Your task to perform on an android device: uninstall "YouTube Kids" Image 0: 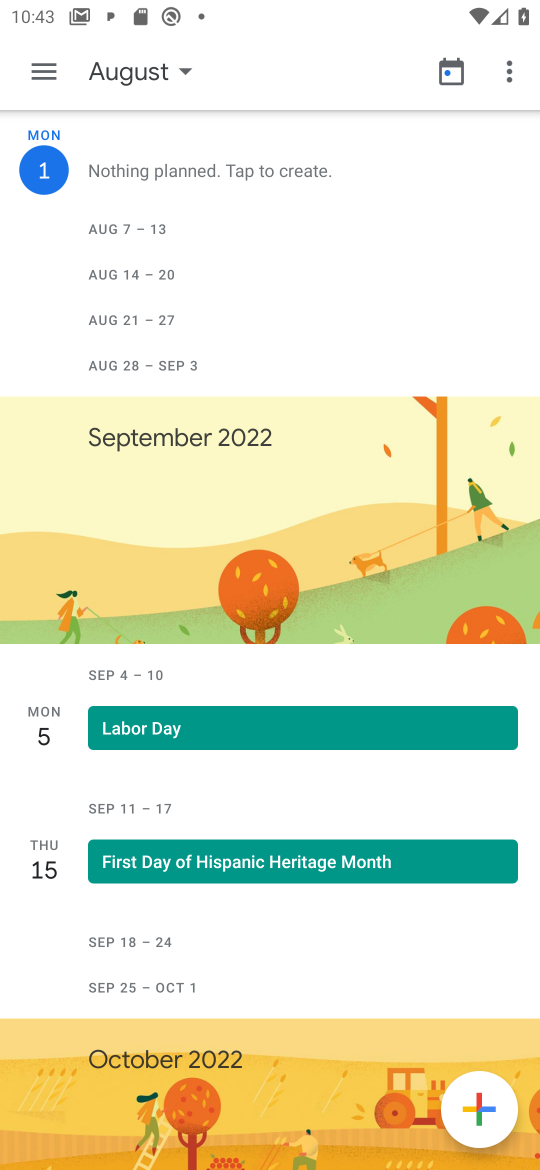
Step 0: press home button
Your task to perform on an android device: uninstall "YouTube Kids" Image 1: 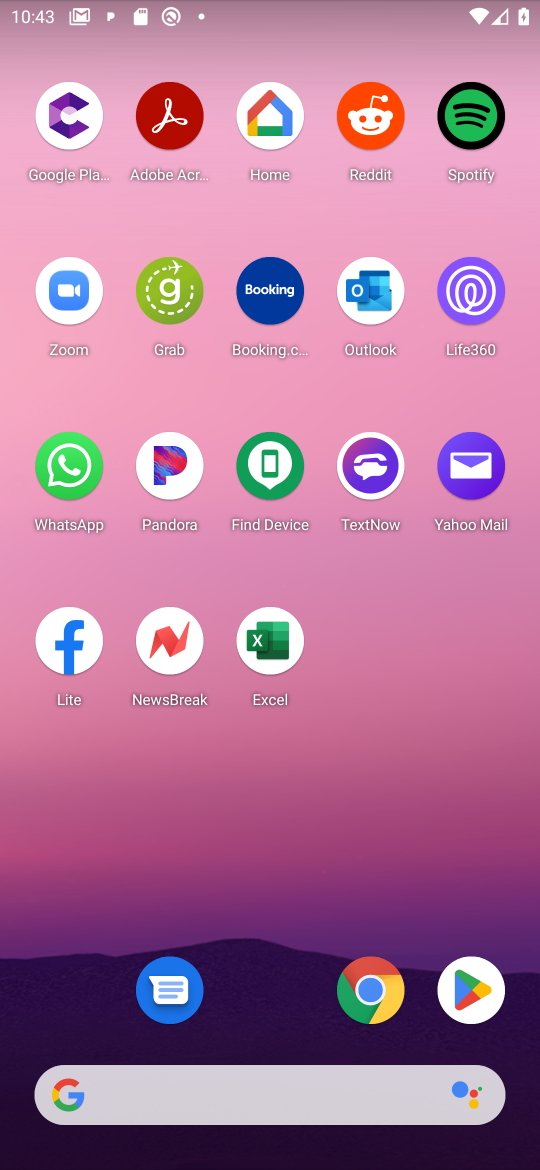
Step 1: click (472, 984)
Your task to perform on an android device: uninstall "YouTube Kids" Image 2: 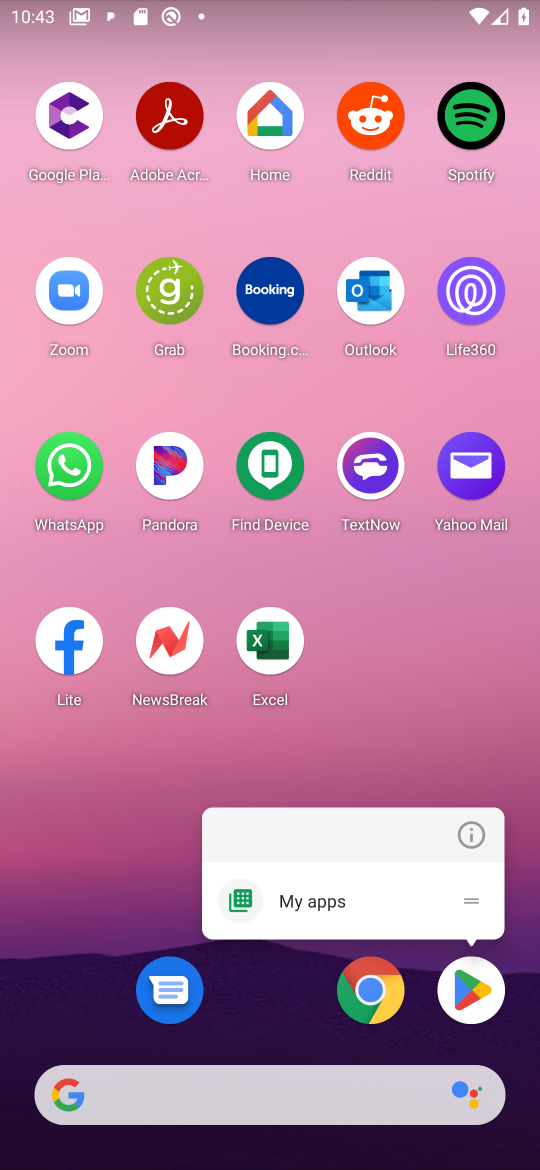
Step 2: click (487, 984)
Your task to perform on an android device: uninstall "YouTube Kids" Image 3: 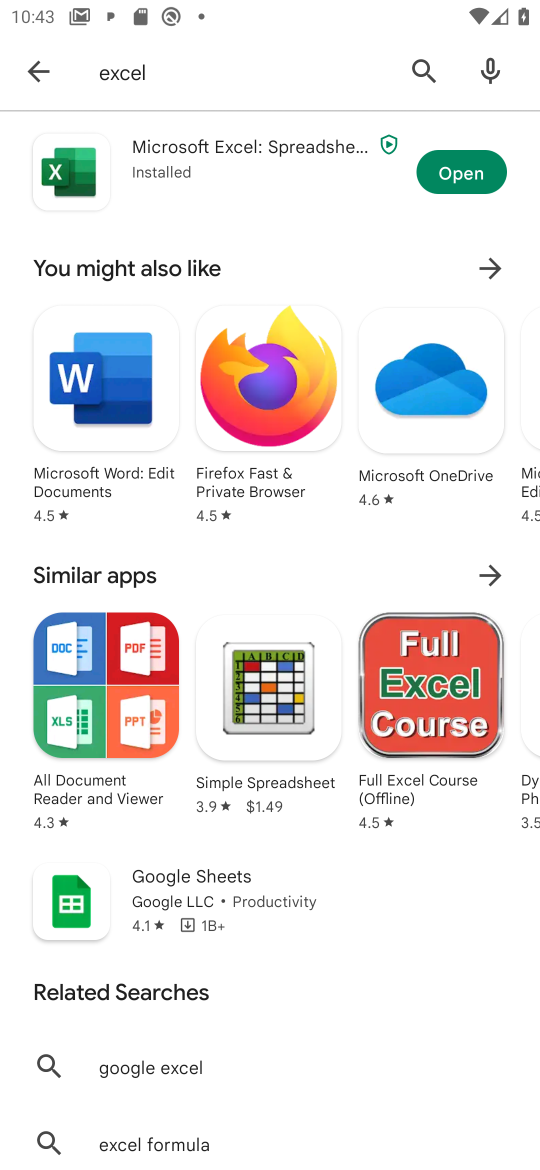
Step 3: click (406, 70)
Your task to perform on an android device: uninstall "YouTube Kids" Image 4: 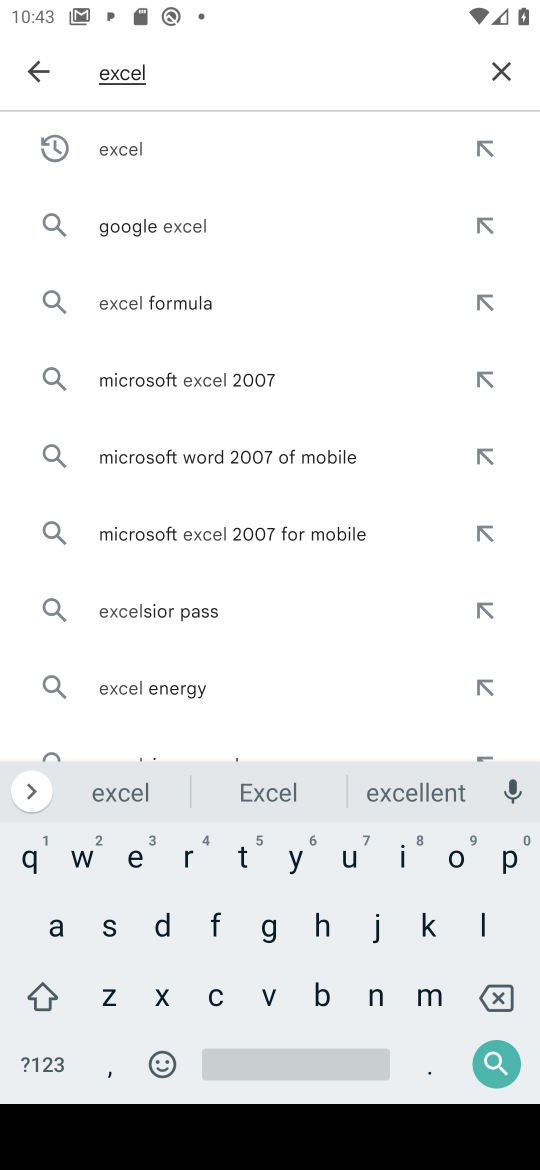
Step 4: click (500, 67)
Your task to perform on an android device: uninstall "YouTube Kids" Image 5: 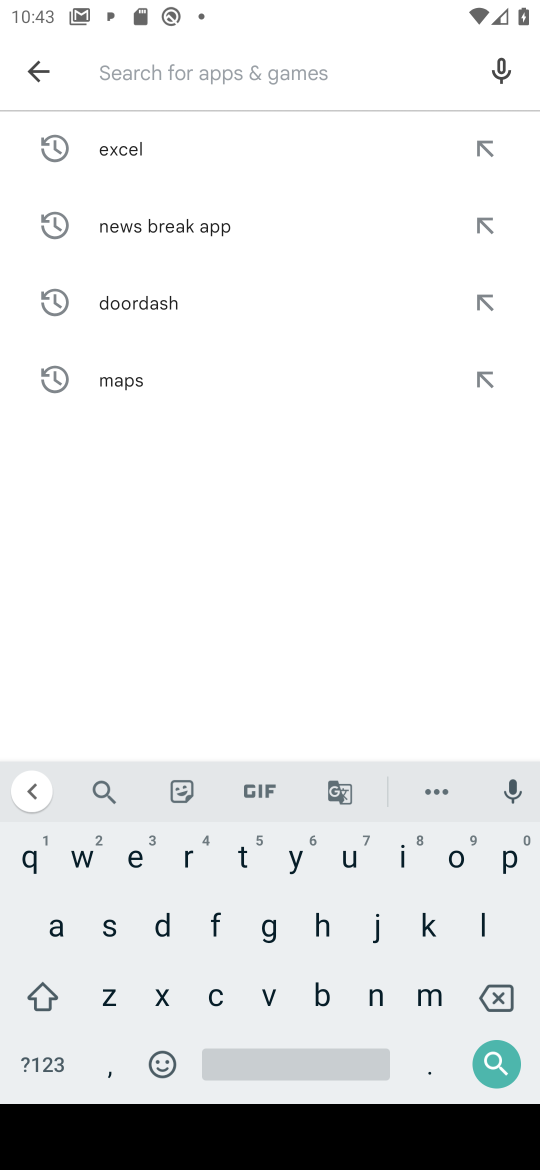
Step 5: click (293, 869)
Your task to perform on an android device: uninstall "YouTube Kids" Image 6: 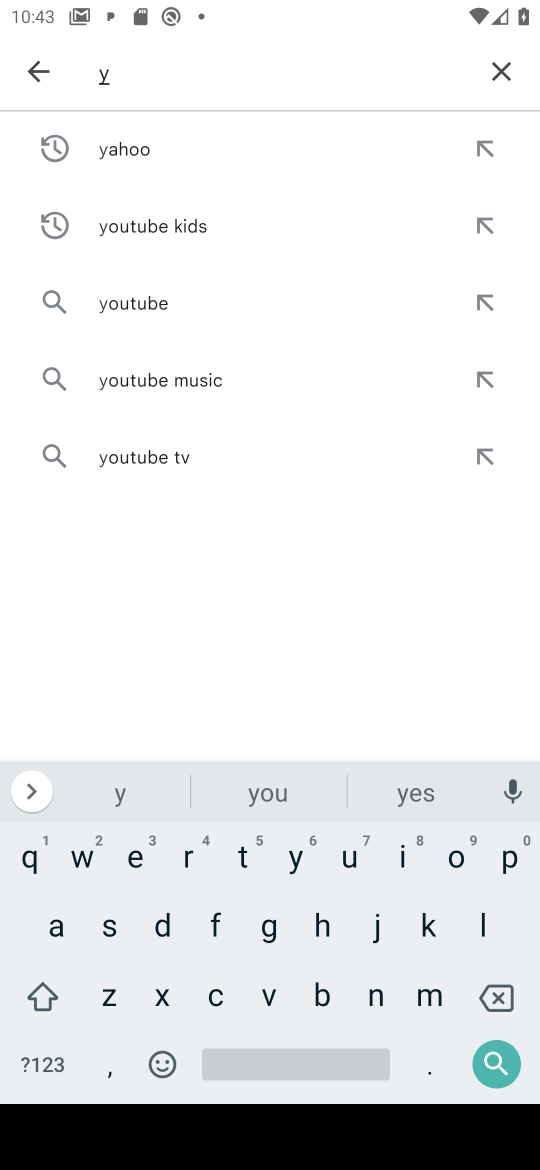
Step 6: click (460, 864)
Your task to perform on an android device: uninstall "YouTube Kids" Image 7: 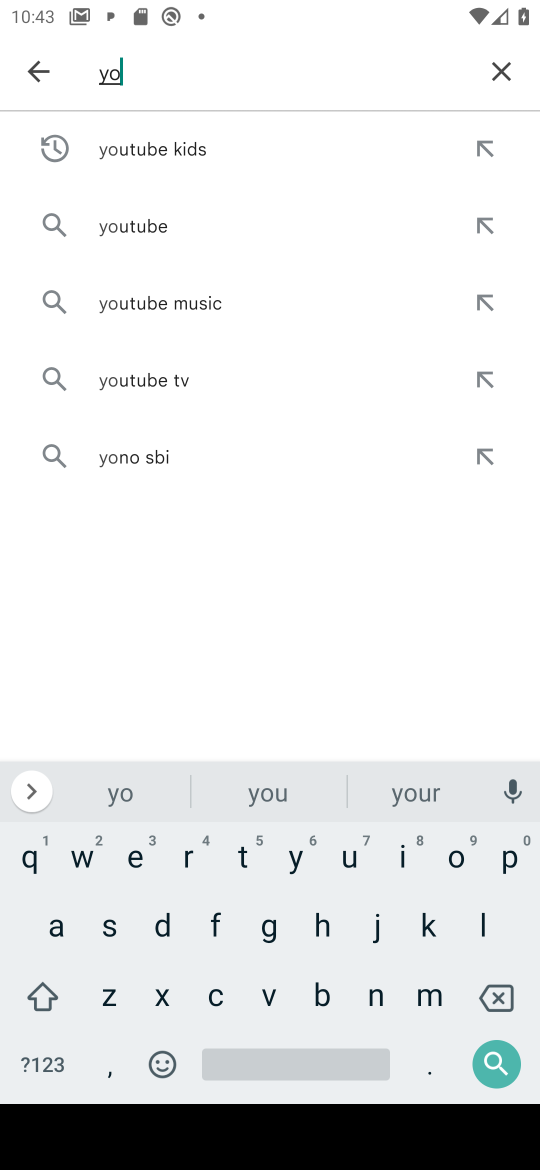
Step 7: click (213, 145)
Your task to perform on an android device: uninstall "YouTube Kids" Image 8: 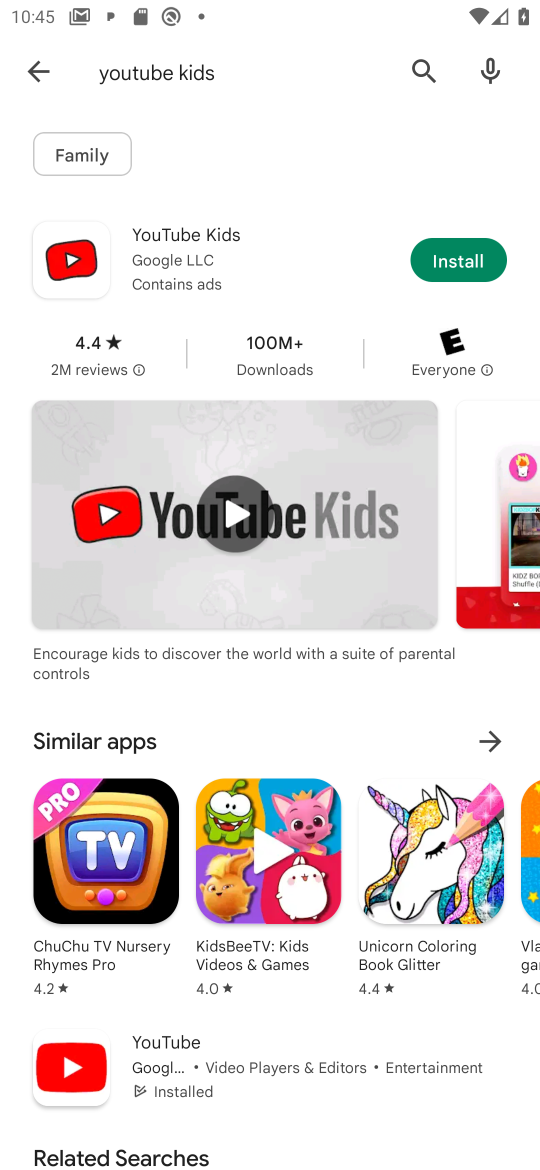
Step 8: task complete